Your task to perform on an android device: Open my contact list Image 0: 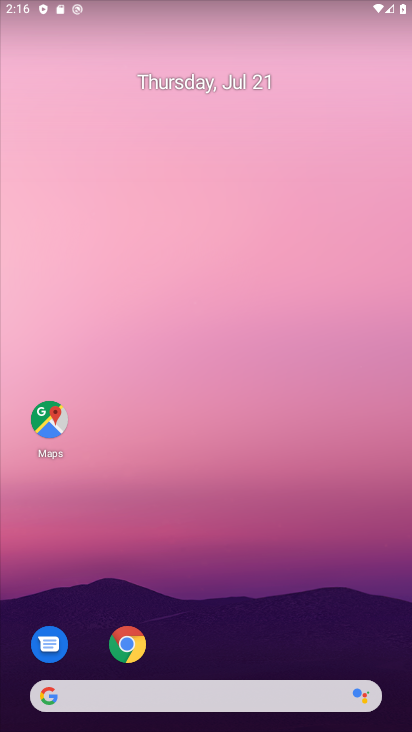
Step 0: drag from (157, 718) to (153, 416)
Your task to perform on an android device: Open my contact list Image 1: 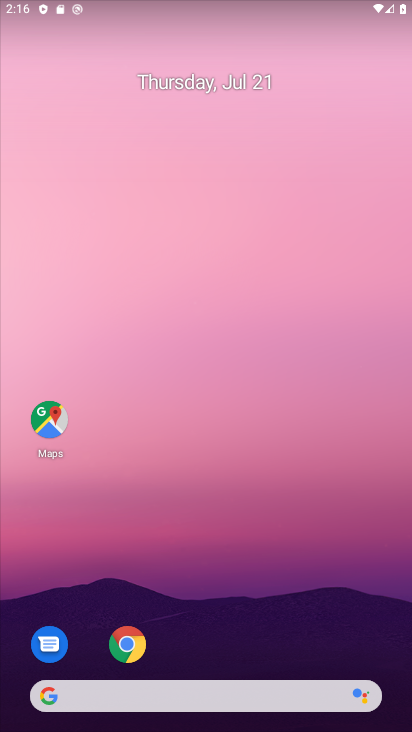
Step 1: drag from (140, 707) to (151, 173)
Your task to perform on an android device: Open my contact list Image 2: 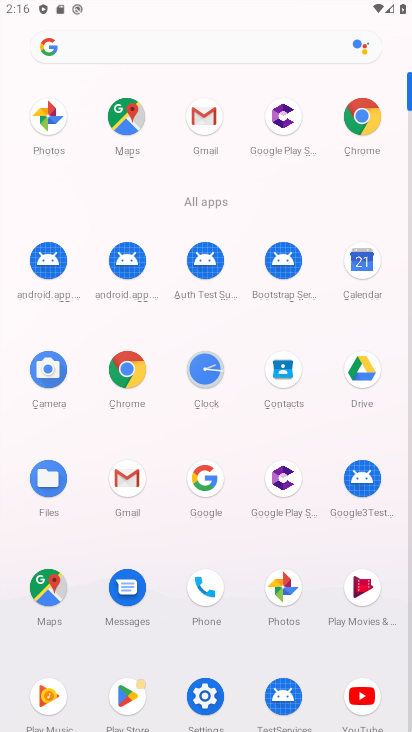
Step 2: click (280, 378)
Your task to perform on an android device: Open my contact list Image 3: 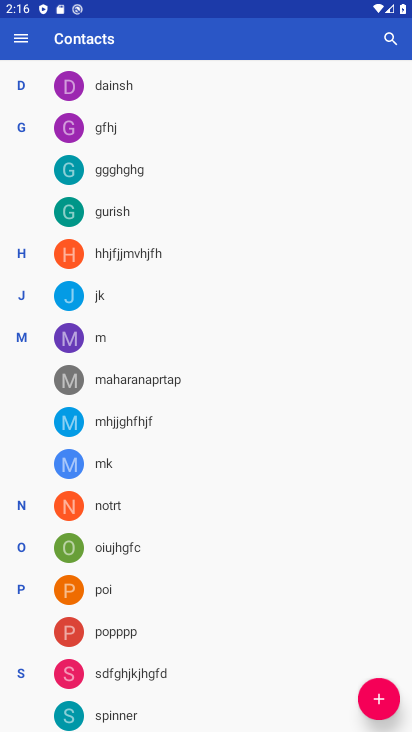
Step 3: task complete